Your task to perform on an android device: Show me the alarms in the clock app Image 0: 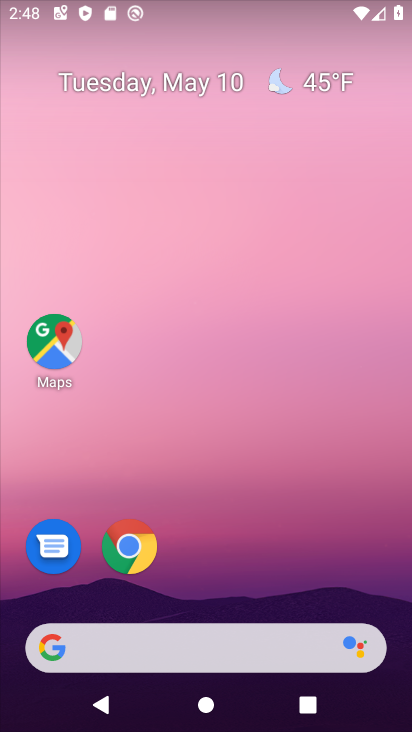
Step 0: drag from (237, 530) to (202, 42)
Your task to perform on an android device: Show me the alarms in the clock app Image 1: 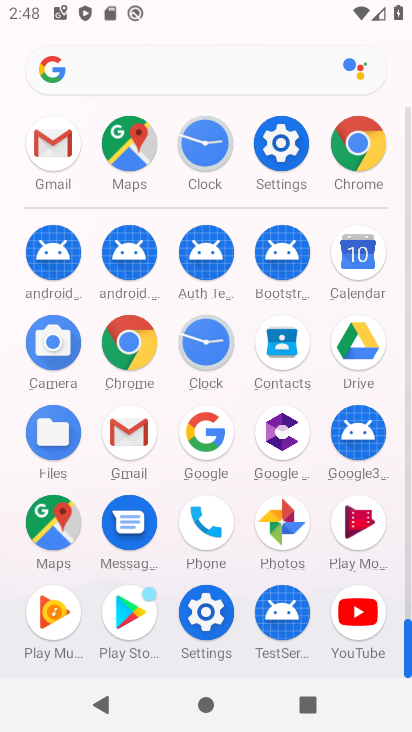
Step 1: click (205, 342)
Your task to perform on an android device: Show me the alarms in the clock app Image 2: 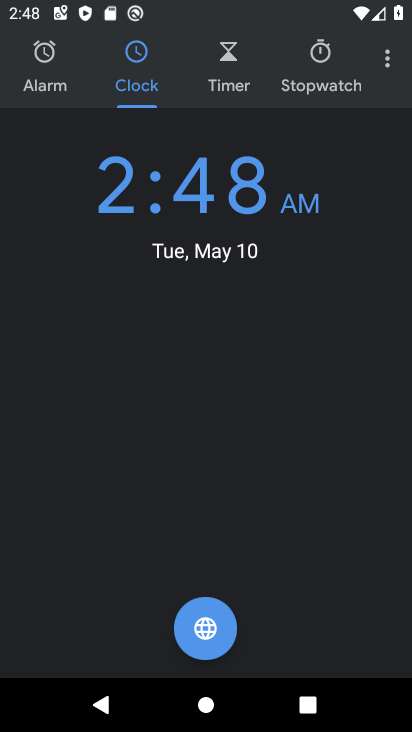
Step 2: click (58, 78)
Your task to perform on an android device: Show me the alarms in the clock app Image 3: 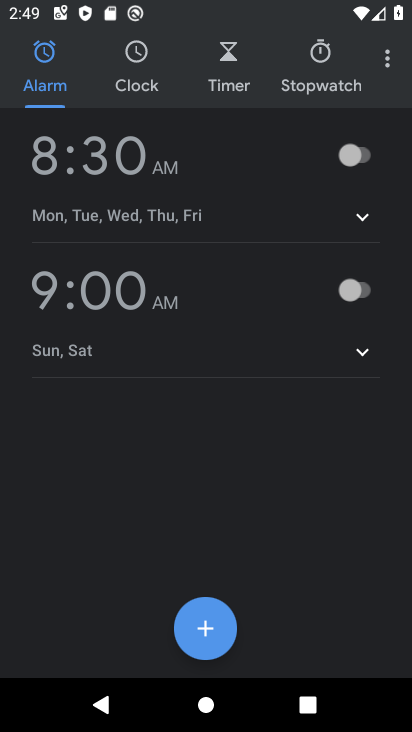
Step 3: task complete